Your task to perform on an android device: uninstall "Google Play Games" Image 0: 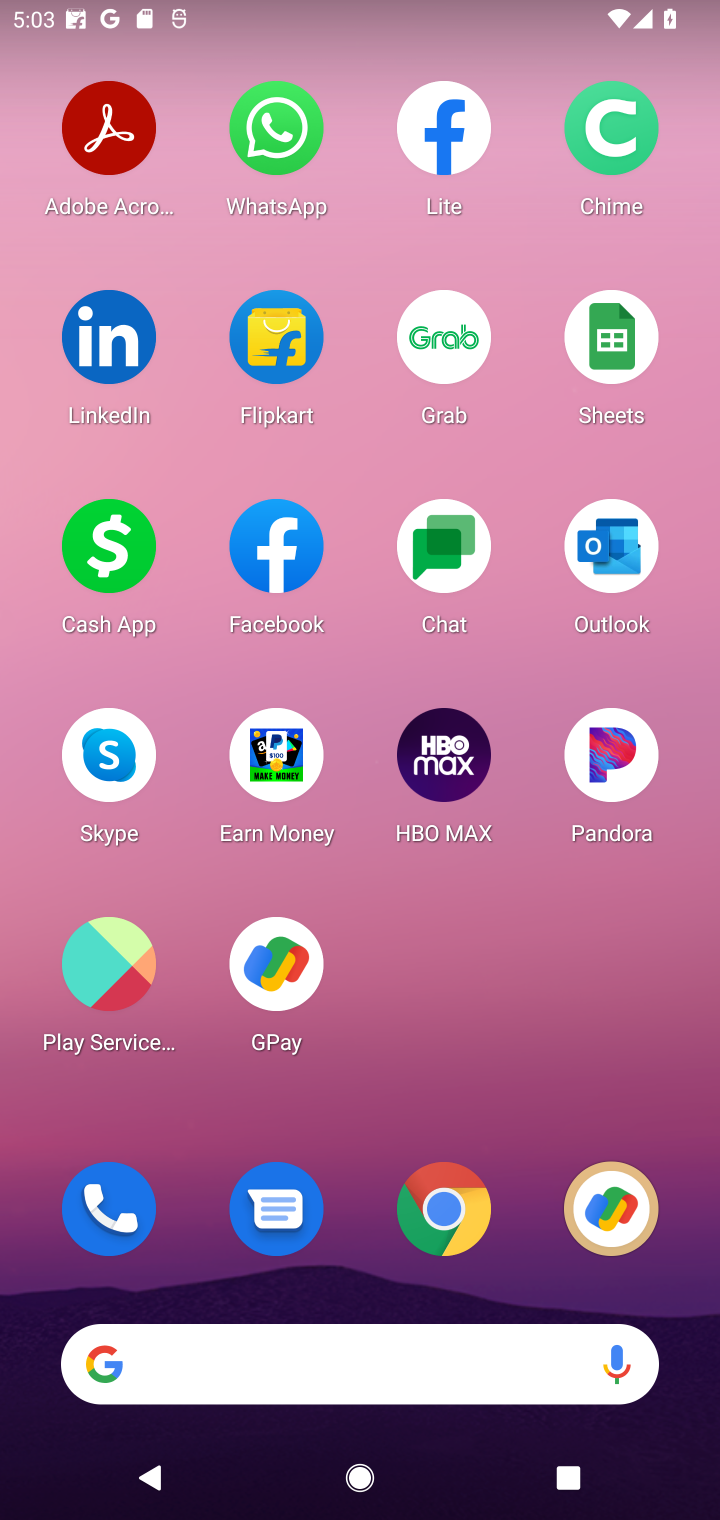
Step 0: task impossible